Your task to perform on an android device: What's the weather today? Image 0: 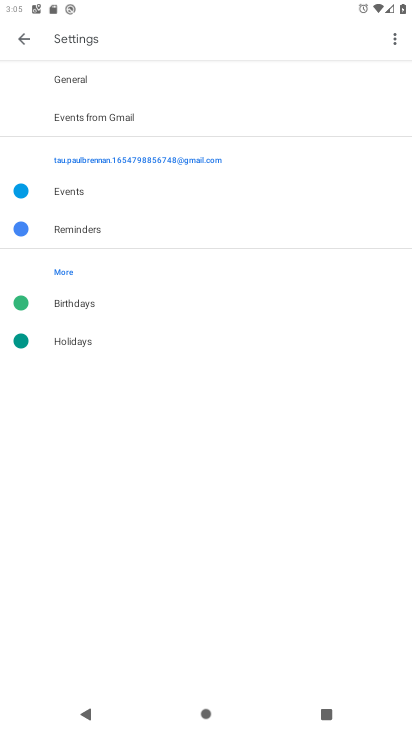
Step 0: press home button
Your task to perform on an android device: What's the weather today? Image 1: 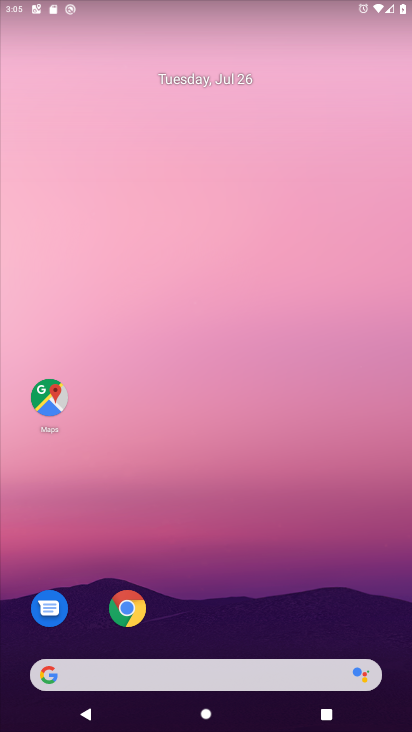
Step 1: click (195, 671)
Your task to perform on an android device: What's the weather today? Image 2: 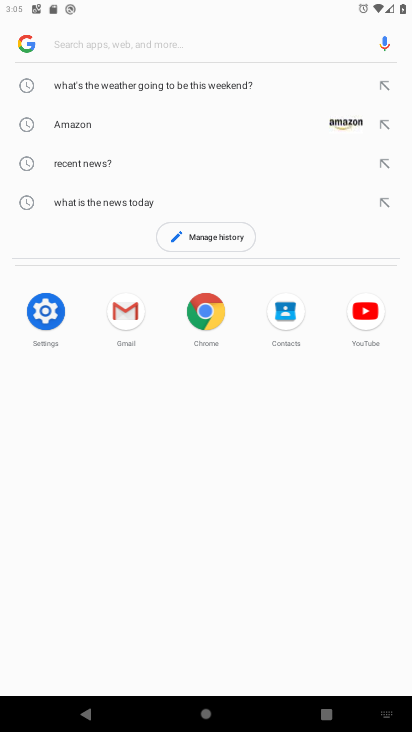
Step 2: type "what's the weather today"
Your task to perform on an android device: What's the weather today? Image 3: 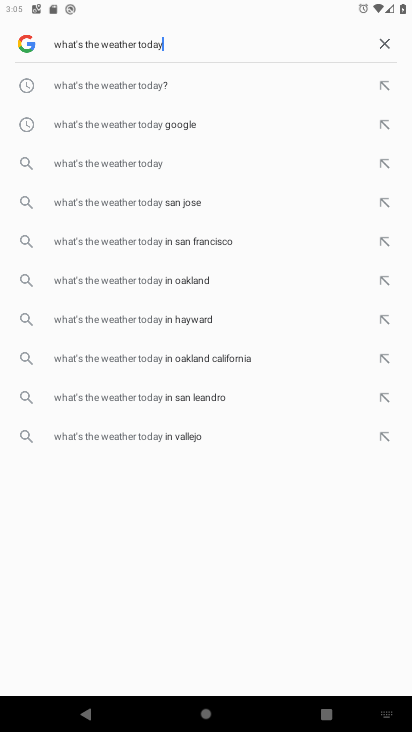
Step 3: click (263, 90)
Your task to perform on an android device: What's the weather today? Image 4: 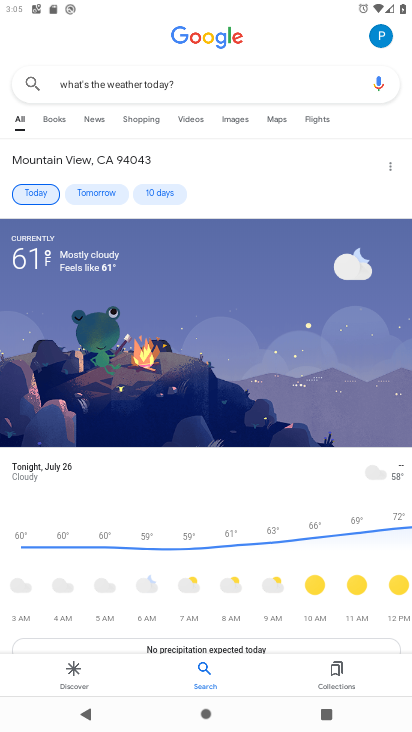
Step 4: task complete